Your task to perform on an android device: check data usage Image 0: 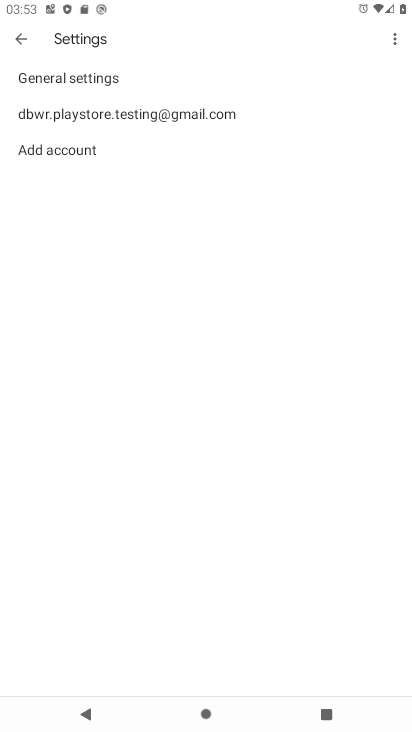
Step 0: click (177, 115)
Your task to perform on an android device: check data usage Image 1: 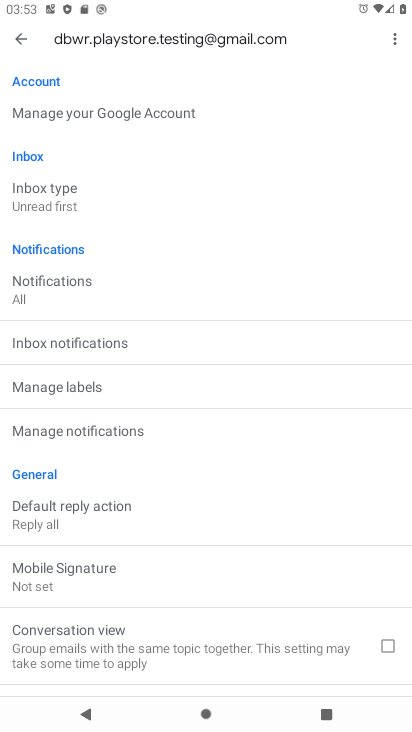
Step 1: drag from (278, 14) to (149, 353)
Your task to perform on an android device: check data usage Image 2: 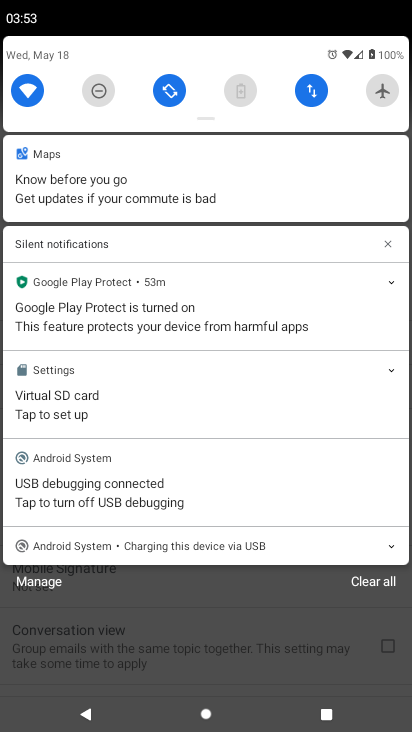
Step 2: click (310, 94)
Your task to perform on an android device: check data usage Image 3: 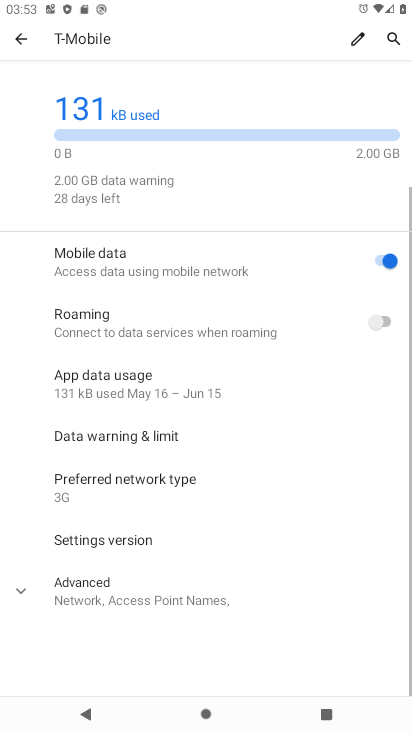
Step 3: task complete